Your task to perform on an android device: toggle pop-ups in chrome Image 0: 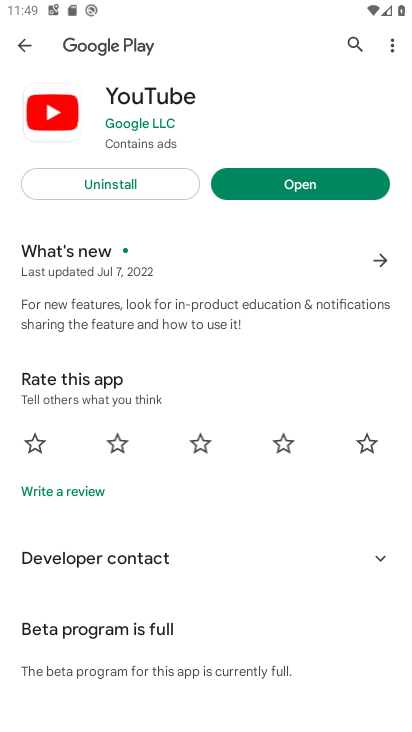
Step 0: press home button
Your task to perform on an android device: toggle pop-ups in chrome Image 1: 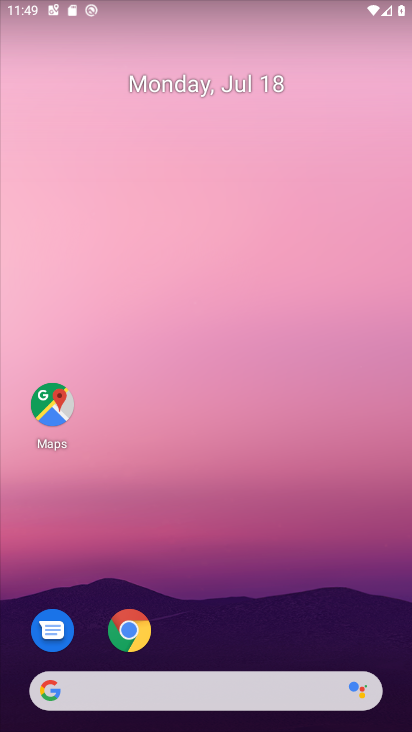
Step 1: click (140, 623)
Your task to perform on an android device: toggle pop-ups in chrome Image 2: 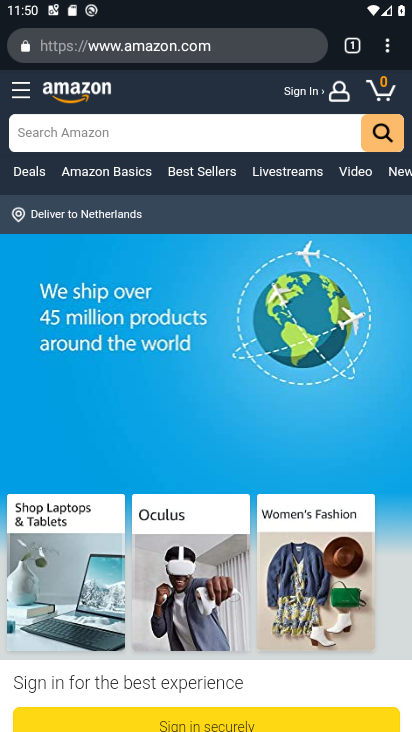
Step 2: click (390, 46)
Your task to perform on an android device: toggle pop-ups in chrome Image 3: 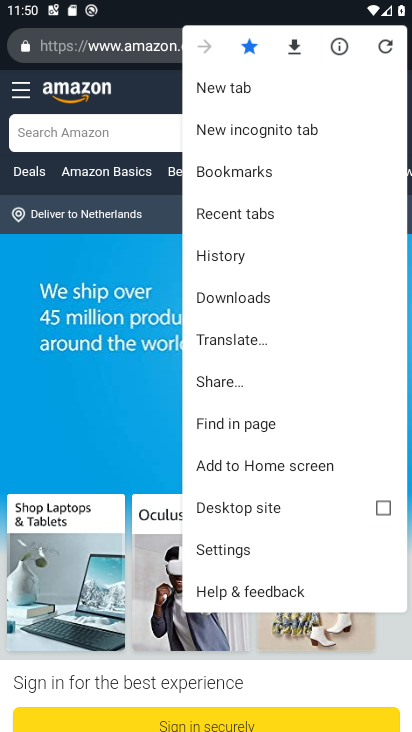
Step 3: click (232, 548)
Your task to perform on an android device: toggle pop-ups in chrome Image 4: 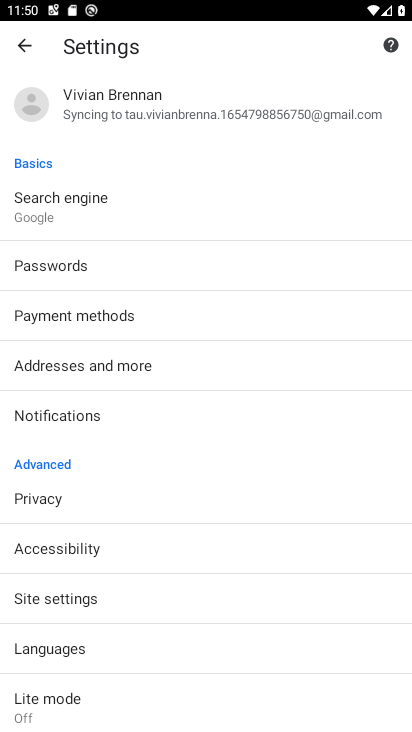
Step 4: click (73, 603)
Your task to perform on an android device: toggle pop-ups in chrome Image 5: 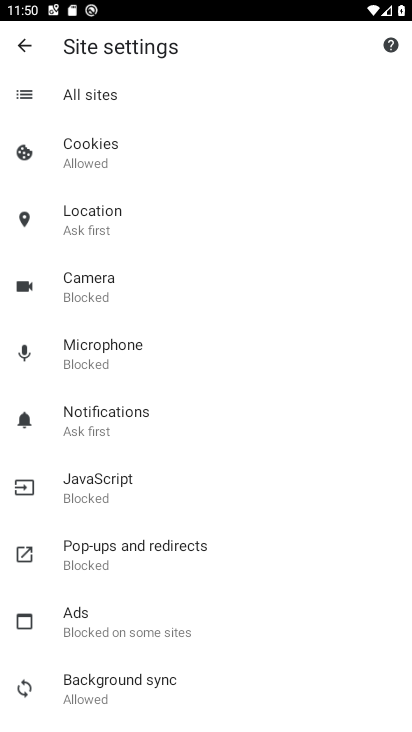
Step 5: click (118, 560)
Your task to perform on an android device: toggle pop-ups in chrome Image 6: 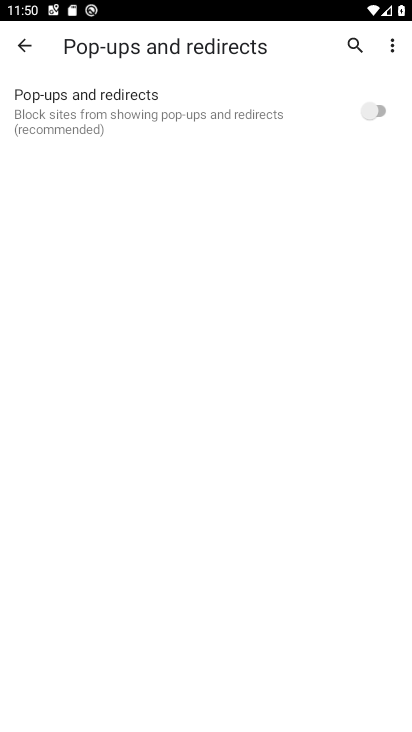
Step 6: click (341, 113)
Your task to perform on an android device: toggle pop-ups in chrome Image 7: 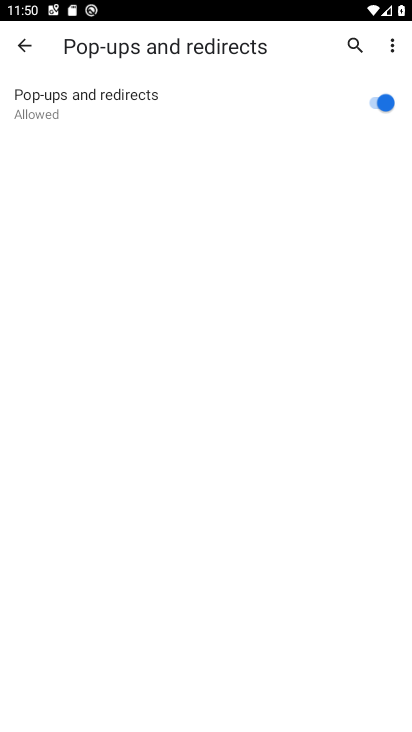
Step 7: task complete